Your task to perform on an android device: Show me recent news Image 0: 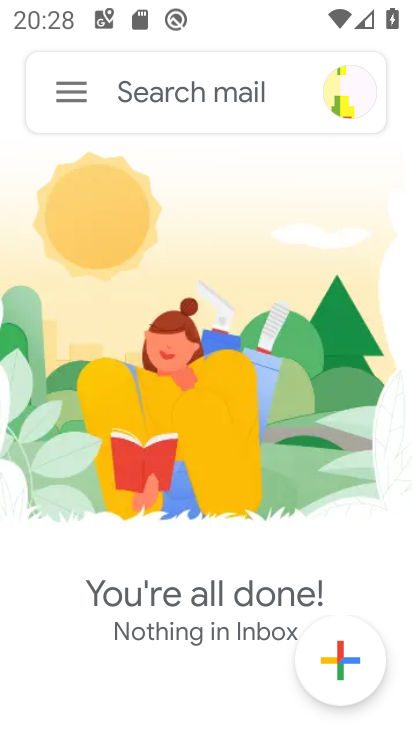
Step 0: press home button
Your task to perform on an android device: Show me recent news Image 1: 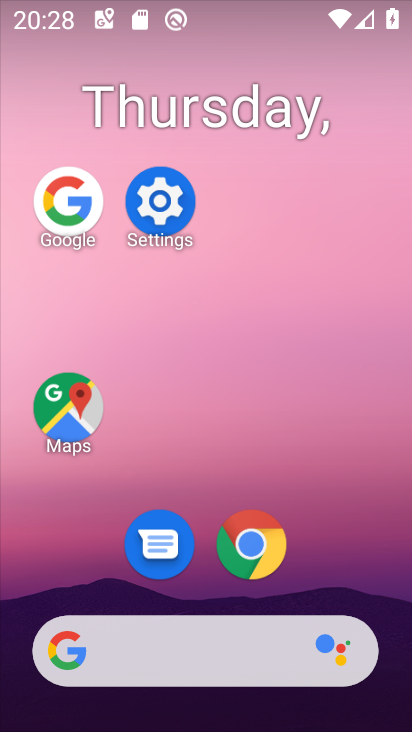
Step 1: drag from (238, 689) to (267, 19)
Your task to perform on an android device: Show me recent news Image 2: 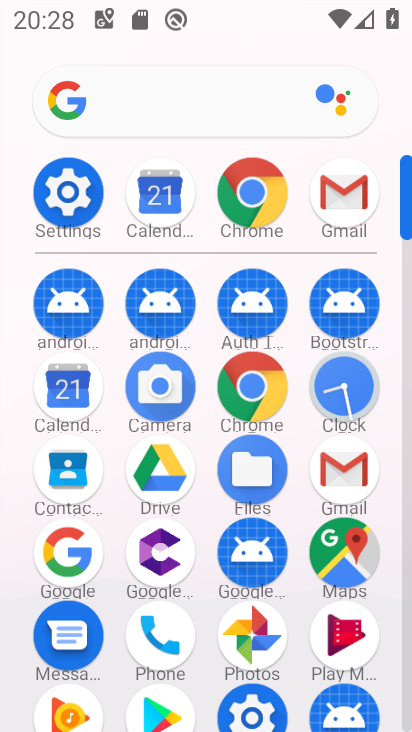
Step 2: click (172, 123)
Your task to perform on an android device: Show me recent news Image 3: 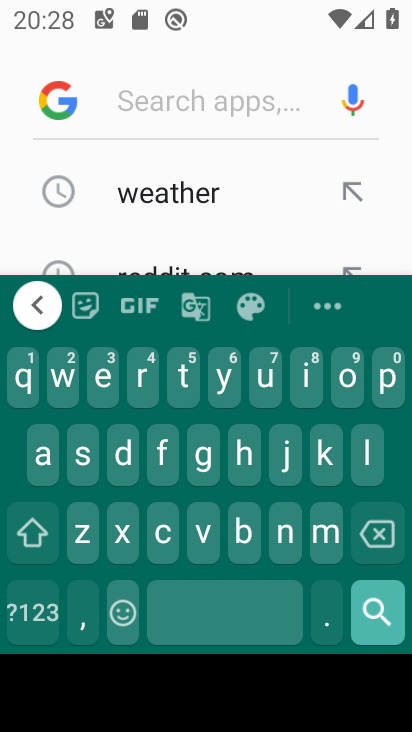
Step 3: click (142, 385)
Your task to perform on an android device: Show me recent news Image 4: 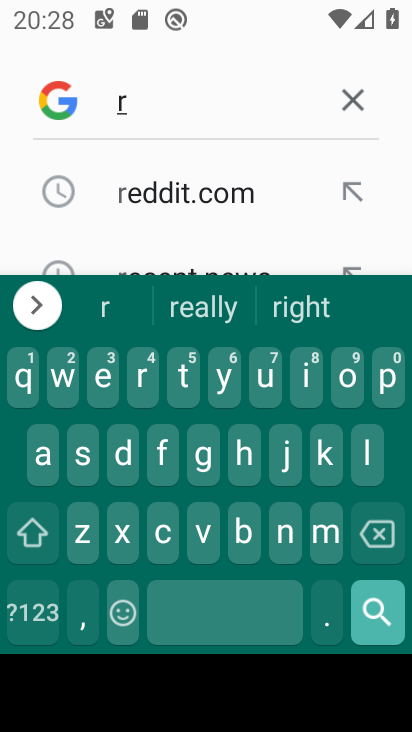
Step 4: click (98, 388)
Your task to perform on an android device: Show me recent news Image 5: 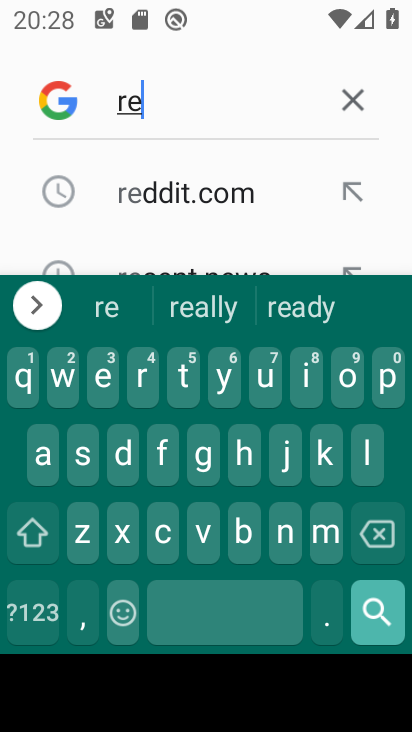
Step 5: click (157, 531)
Your task to perform on an android device: Show me recent news Image 6: 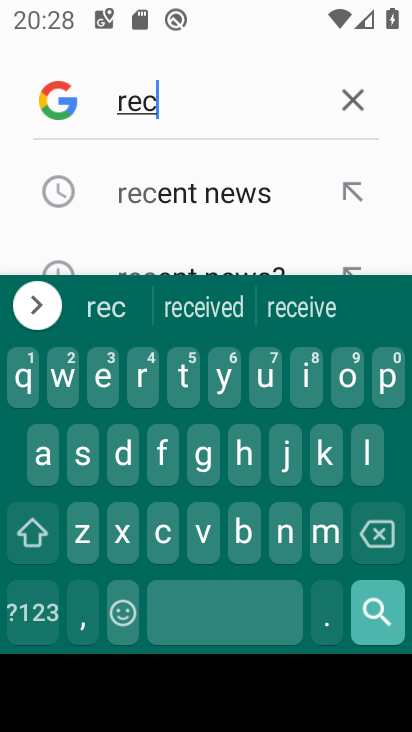
Step 6: click (203, 195)
Your task to perform on an android device: Show me recent news Image 7: 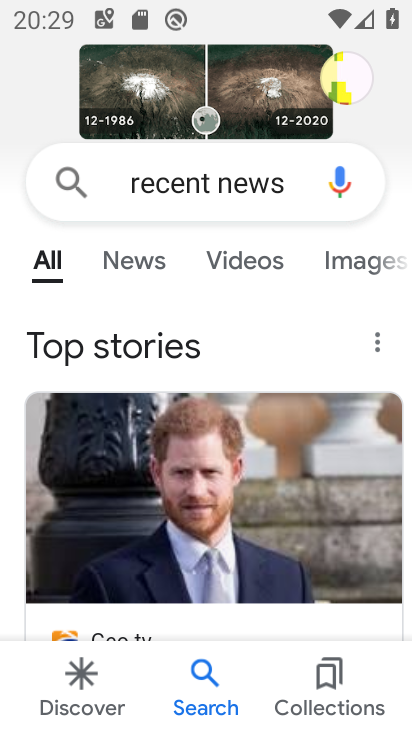
Step 7: task complete